Your task to perform on an android device: delete browsing data in the chrome app Image 0: 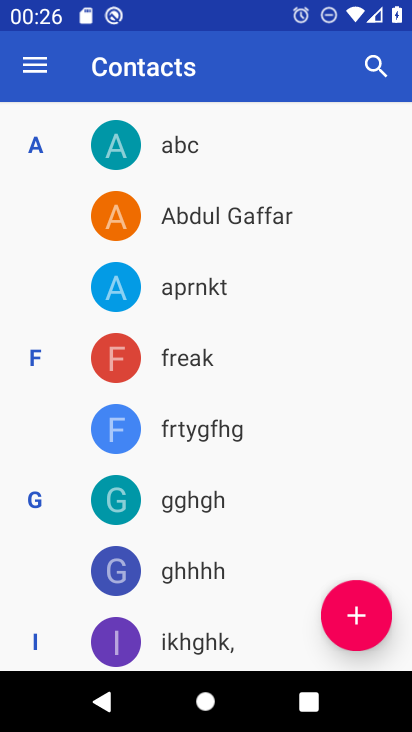
Step 0: press home button
Your task to perform on an android device: delete browsing data in the chrome app Image 1: 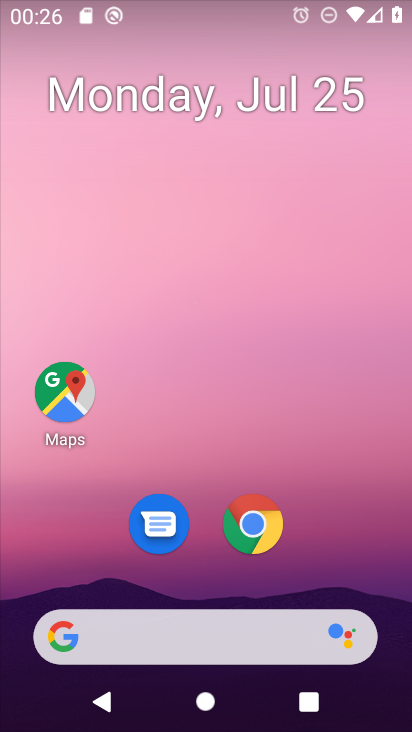
Step 1: click (245, 525)
Your task to perform on an android device: delete browsing data in the chrome app Image 2: 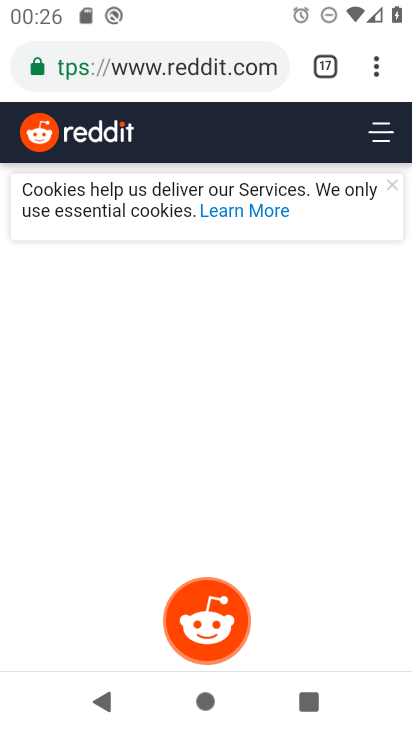
Step 2: drag from (375, 68) to (205, 531)
Your task to perform on an android device: delete browsing data in the chrome app Image 3: 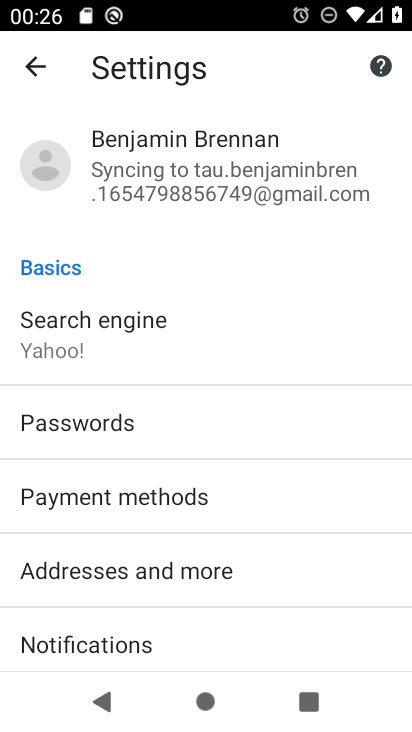
Step 3: drag from (270, 587) to (353, 213)
Your task to perform on an android device: delete browsing data in the chrome app Image 4: 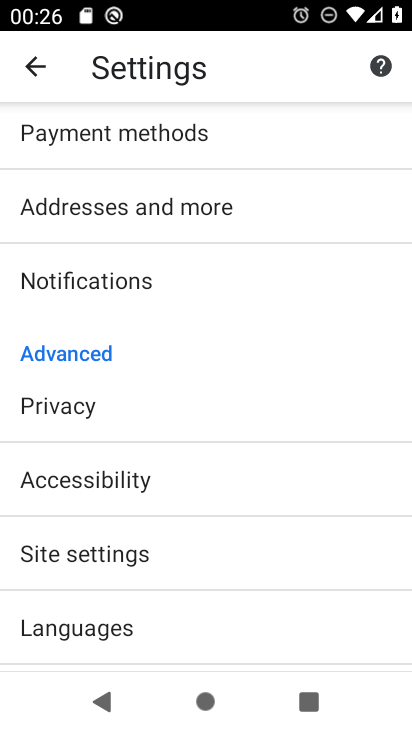
Step 4: click (66, 408)
Your task to perform on an android device: delete browsing data in the chrome app Image 5: 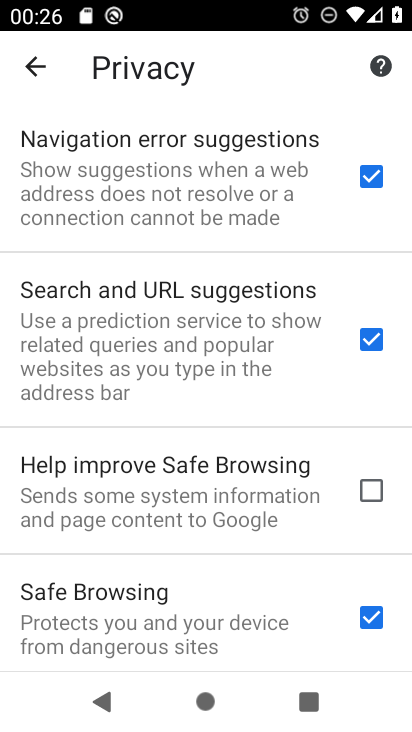
Step 5: drag from (274, 614) to (410, 177)
Your task to perform on an android device: delete browsing data in the chrome app Image 6: 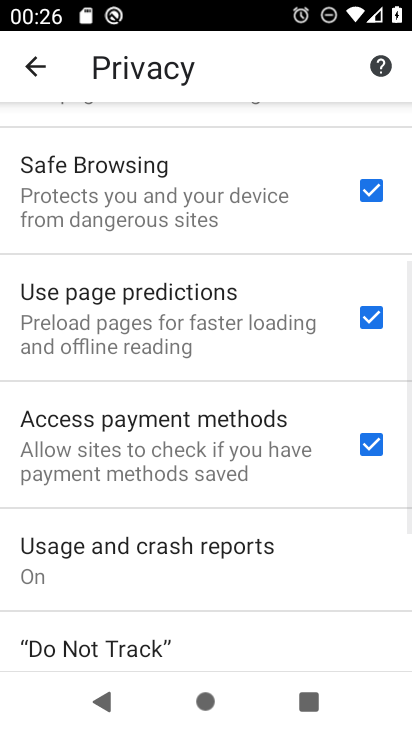
Step 6: drag from (229, 612) to (401, 56)
Your task to perform on an android device: delete browsing data in the chrome app Image 7: 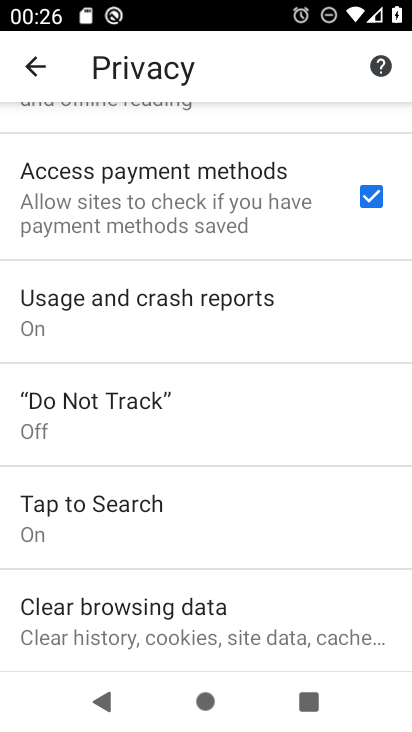
Step 7: click (154, 609)
Your task to perform on an android device: delete browsing data in the chrome app Image 8: 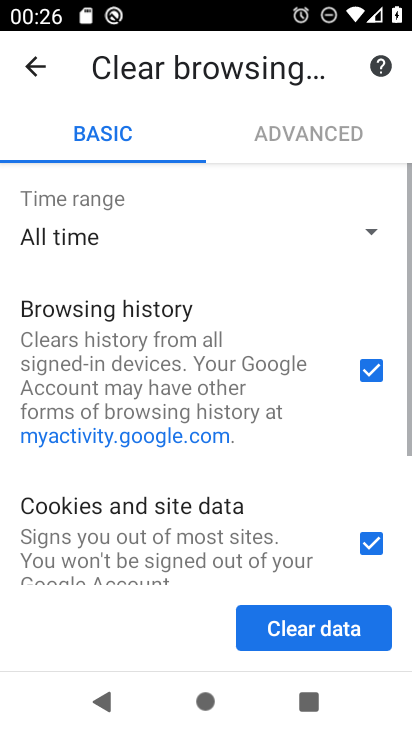
Step 8: drag from (309, 514) to (395, 130)
Your task to perform on an android device: delete browsing data in the chrome app Image 9: 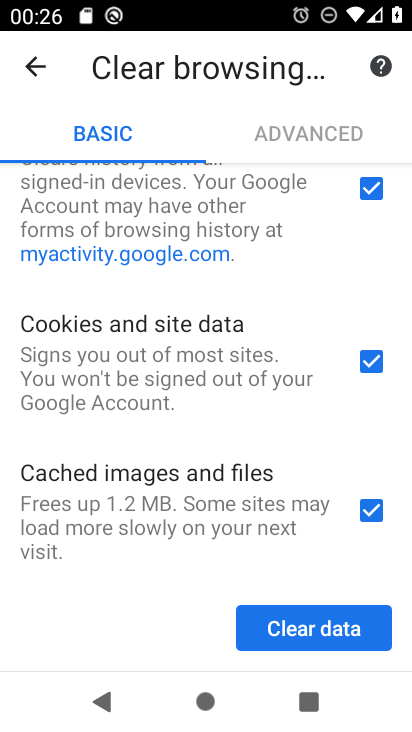
Step 9: click (299, 630)
Your task to perform on an android device: delete browsing data in the chrome app Image 10: 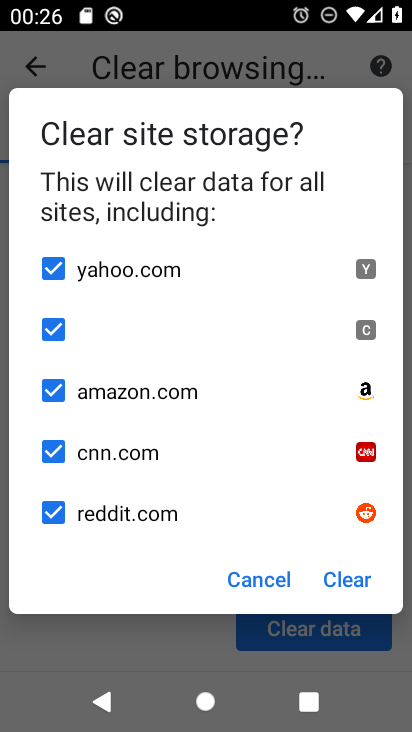
Step 10: click (340, 584)
Your task to perform on an android device: delete browsing data in the chrome app Image 11: 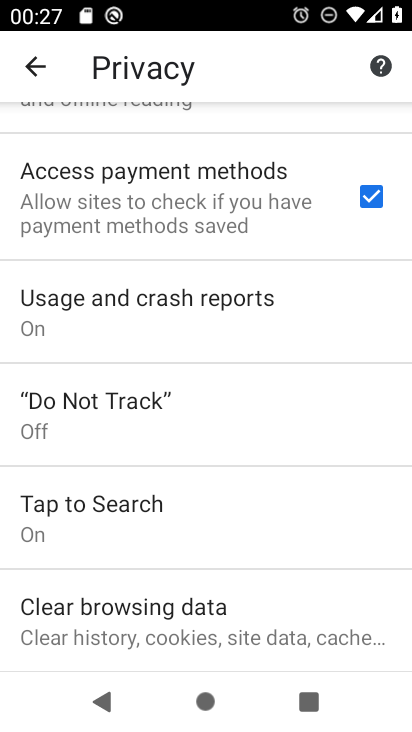
Step 11: task complete